Your task to perform on an android device: Open Yahoo.com Image 0: 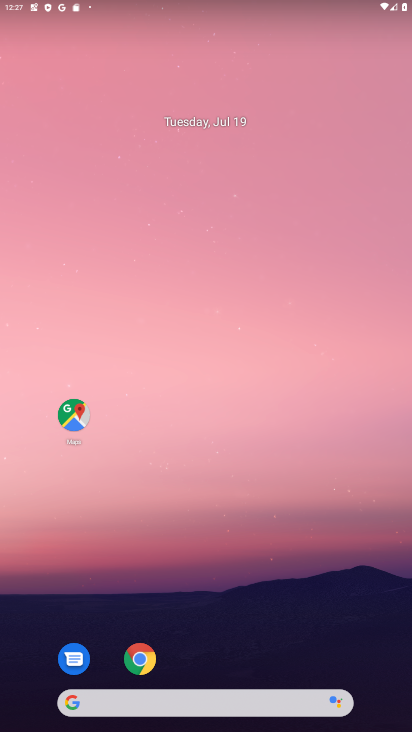
Step 0: click (142, 659)
Your task to perform on an android device: Open Yahoo.com Image 1: 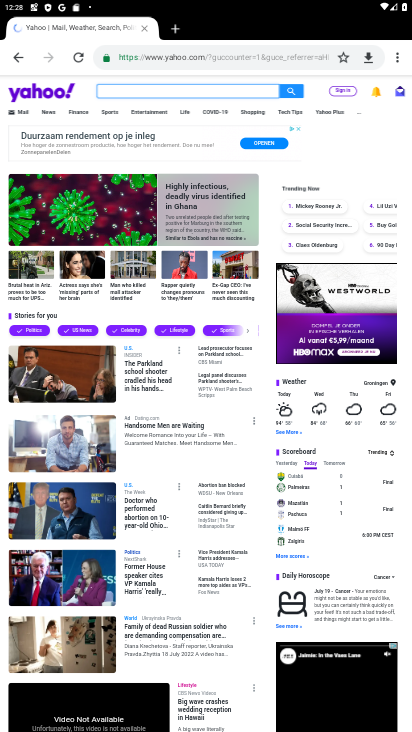
Step 1: click (300, 56)
Your task to perform on an android device: Open Yahoo.com Image 2: 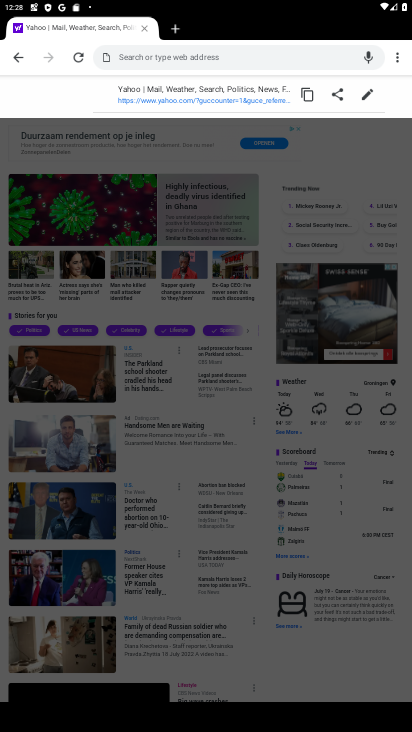
Step 2: type "Yahoo.com"
Your task to perform on an android device: Open Yahoo.com Image 3: 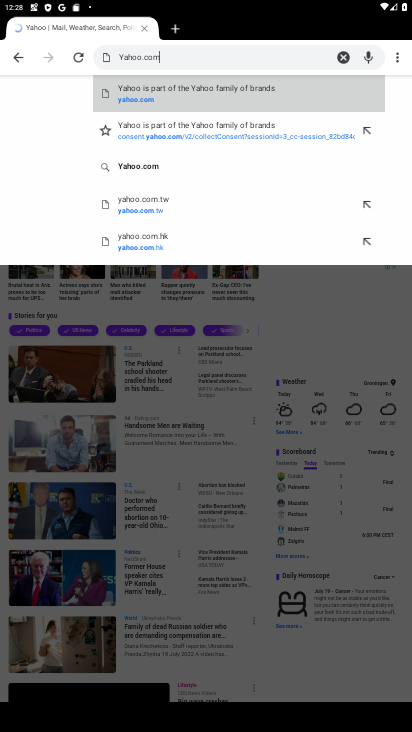
Step 3: click (138, 166)
Your task to perform on an android device: Open Yahoo.com Image 4: 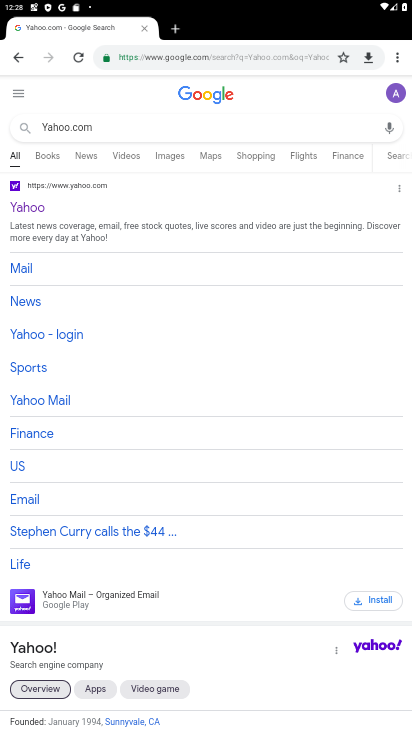
Step 4: click (17, 209)
Your task to perform on an android device: Open Yahoo.com Image 5: 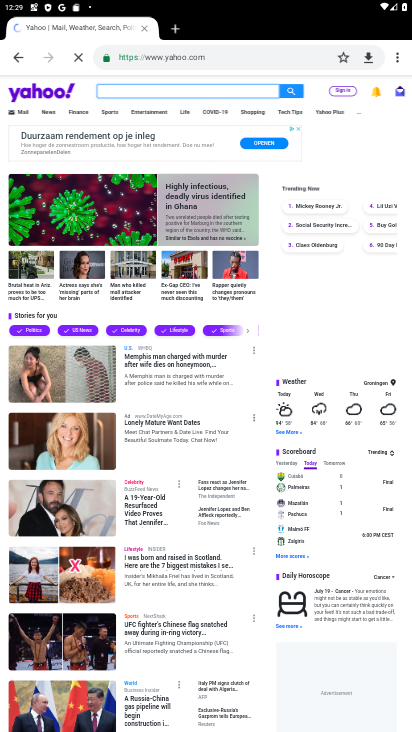
Step 5: task complete